Your task to perform on an android device: turn vacation reply on in the gmail app Image 0: 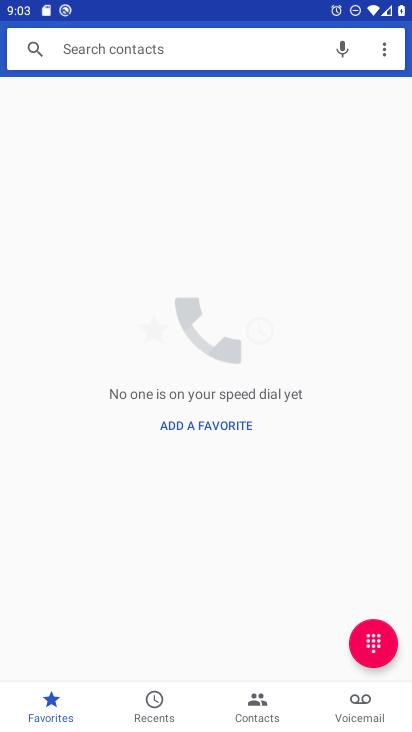
Step 0: press home button
Your task to perform on an android device: turn vacation reply on in the gmail app Image 1: 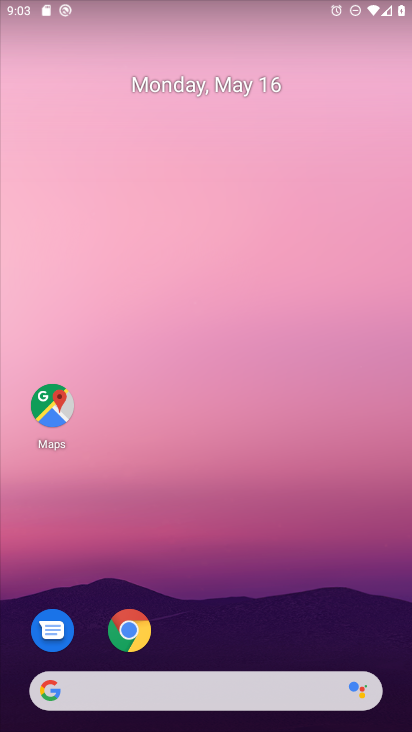
Step 1: drag from (265, 499) to (278, 16)
Your task to perform on an android device: turn vacation reply on in the gmail app Image 2: 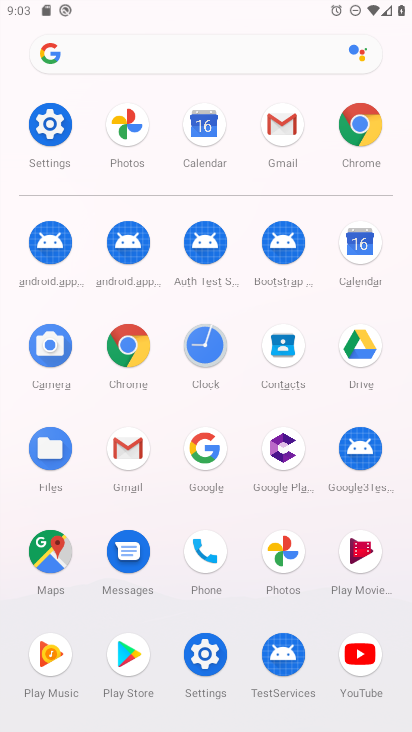
Step 2: click (284, 119)
Your task to perform on an android device: turn vacation reply on in the gmail app Image 3: 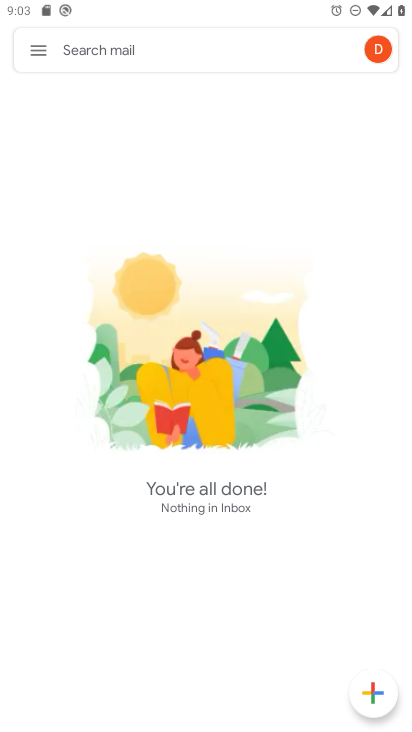
Step 3: click (31, 51)
Your task to perform on an android device: turn vacation reply on in the gmail app Image 4: 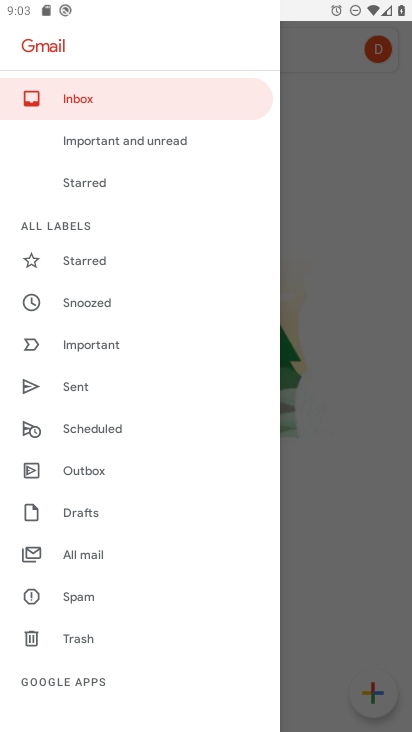
Step 4: drag from (128, 558) to (137, 298)
Your task to perform on an android device: turn vacation reply on in the gmail app Image 5: 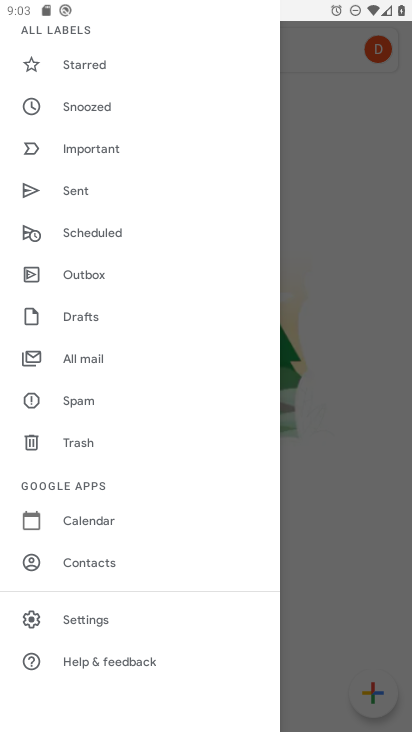
Step 5: click (118, 621)
Your task to perform on an android device: turn vacation reply on in the gmail app Image 6: 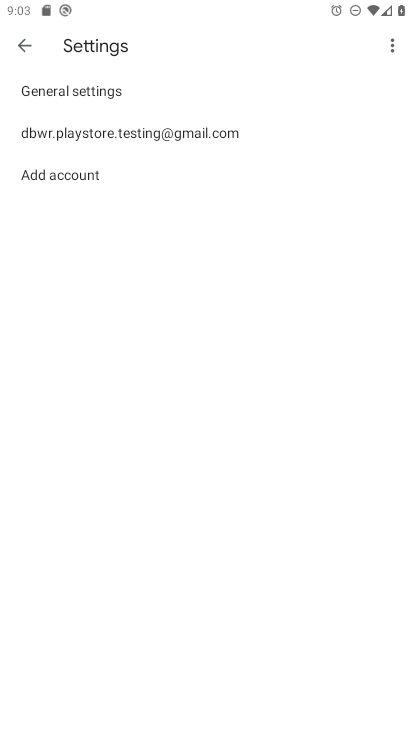
Step 6: task complete